Your task to perform on an android device: change timer sound Image 0: 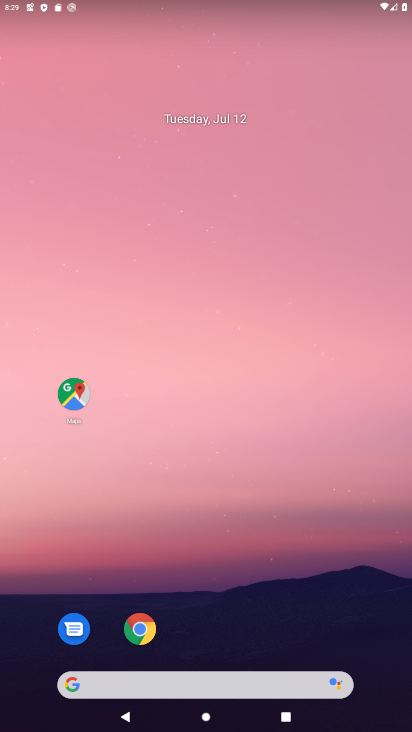
Step 0: drag from (125, 585) to (223, 208)
Your task to perform on an android device: change timer sound Image 1: 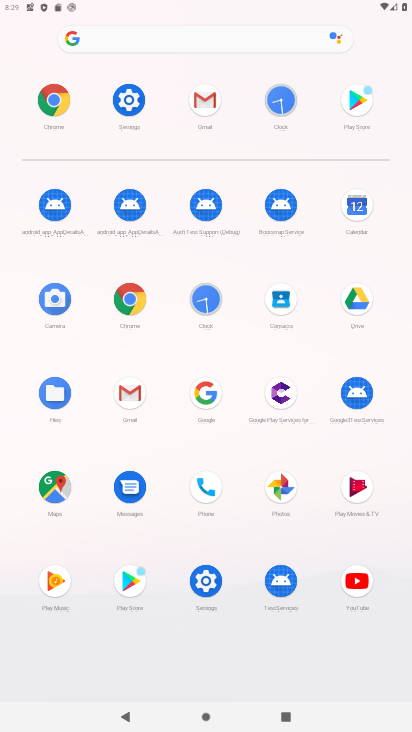
Step 1: click (271, 106)
Your task to perform on an android device: change timer sound Image 2: 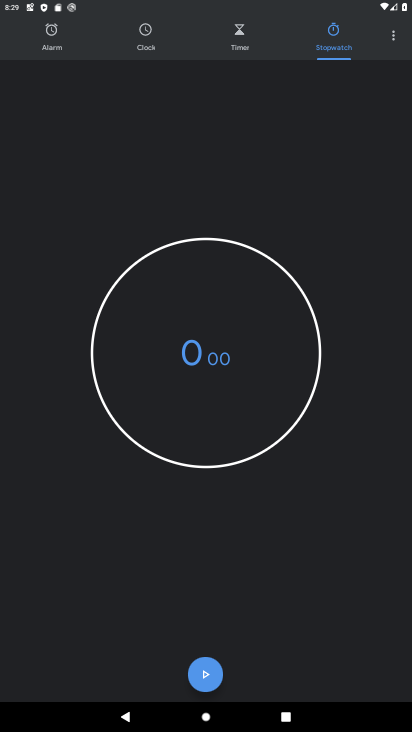
Step 2: click (395, 39)
Your task to perform on an android device: change timer sound Image 3: 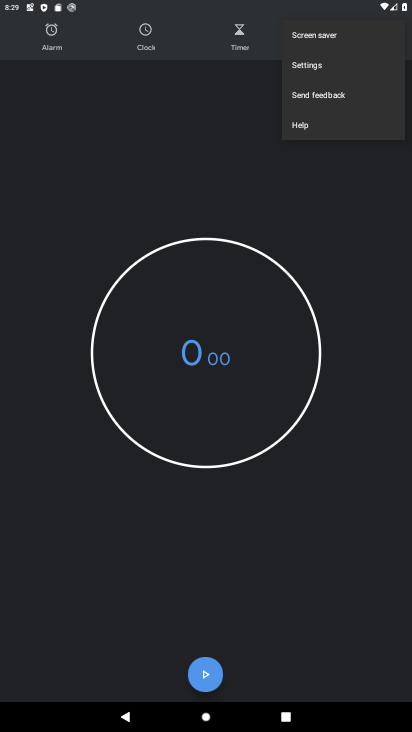
Step 3: click (318, 71)
Your task to perform on an android device: change timer sound Image 4: 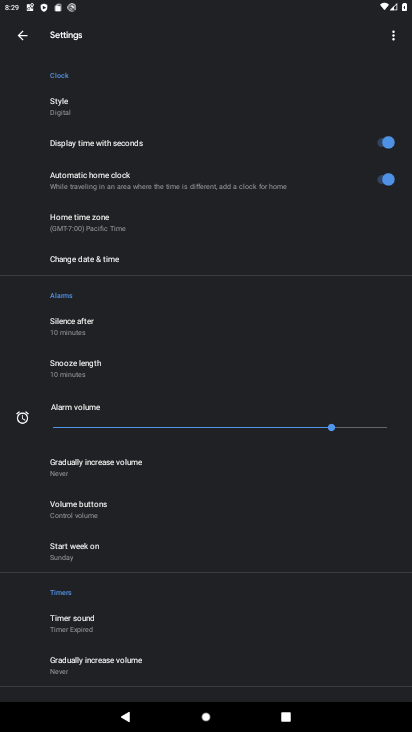
Step 4: drag from (189, 501) to (231, 263)
Your task to perform on an android device: change timer sound Image 5: 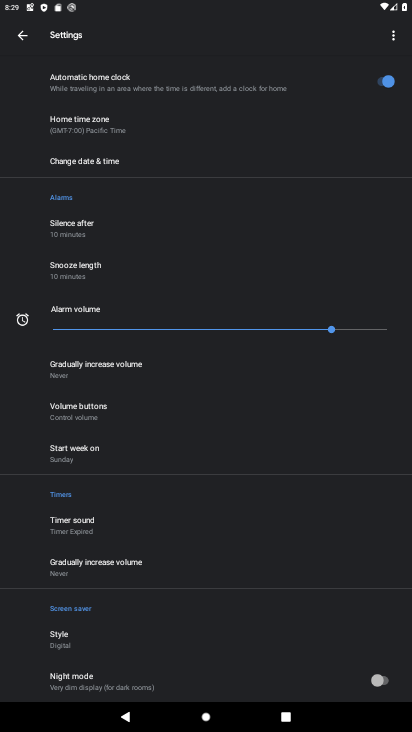
Step 5: click (81, 522)
Your task to perform on an android device: change timer sound Image 6: 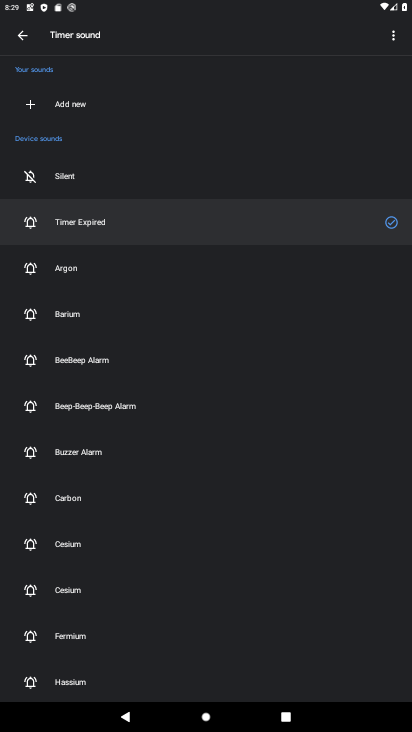
Step 6: click (82, 363)
Your task to perform on an android device: change timer sound Image 7: 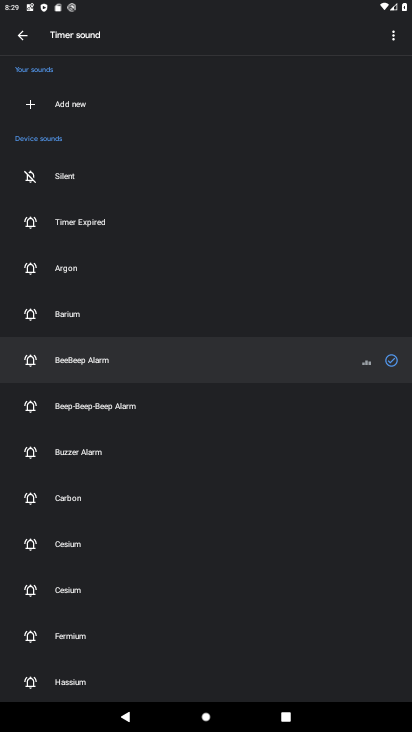
Step 7: task complete